Your task to perform on an android device: check data usage Image 0: 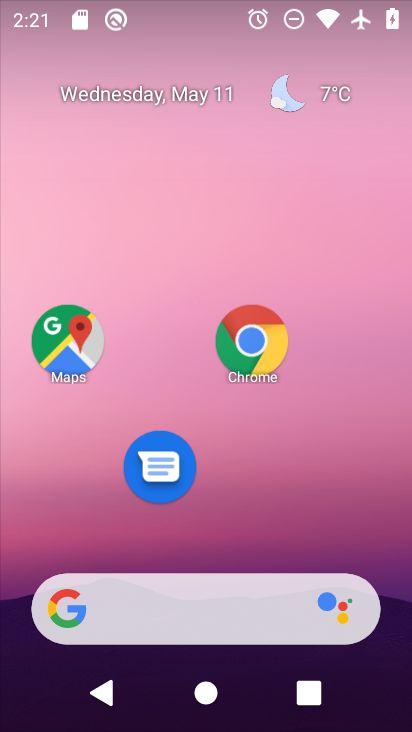
Step 0: press home button
Your task to perform on an android device: check data usage Image 1: 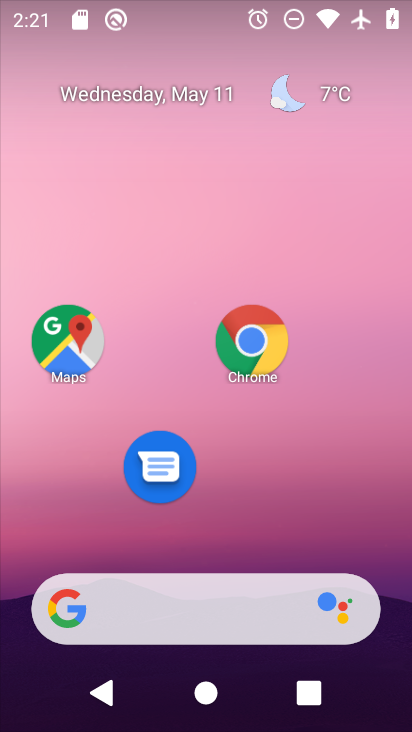
Step 1: drag from (179, 611) to (269, 105)
Your task to perform on an android device: check data usage Image 2: 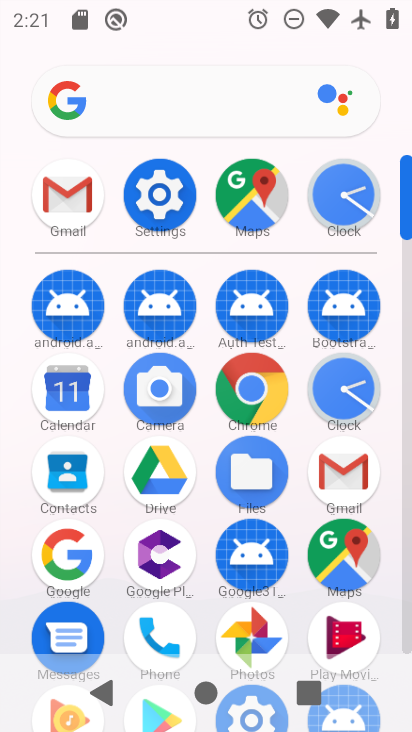
Step 2: click (159, 212)
Your task to perform on an android device: check data usage Image 3: 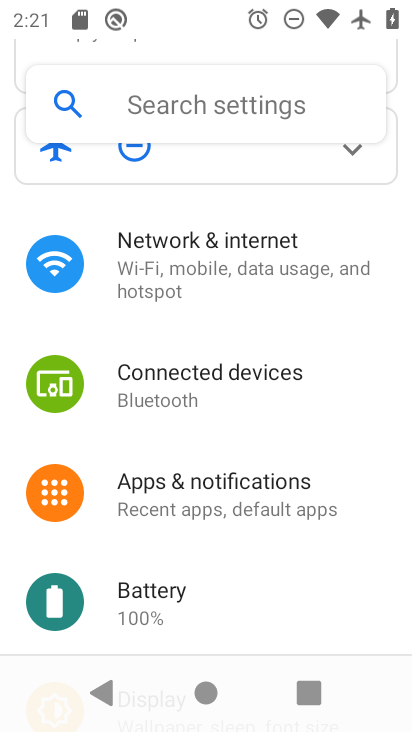
Step 3: click (208, 264)
Your task to perform on an android device: check data usage Image 4: 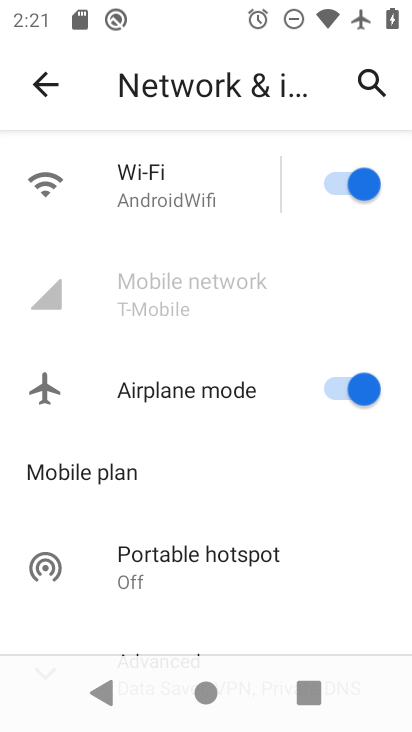
Step 4: click (160, 198)
Your task to perform on an android device: check data usage Image 5: 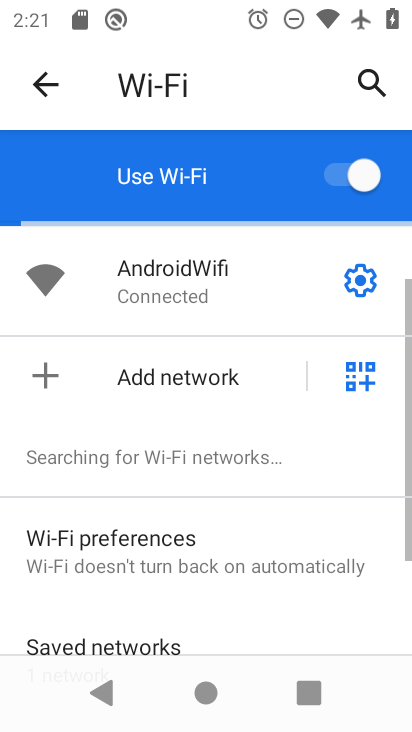
Step 5: drag from (199, 612) to (329, 162)
Your task to perform on an android device: check data usage Image 6: 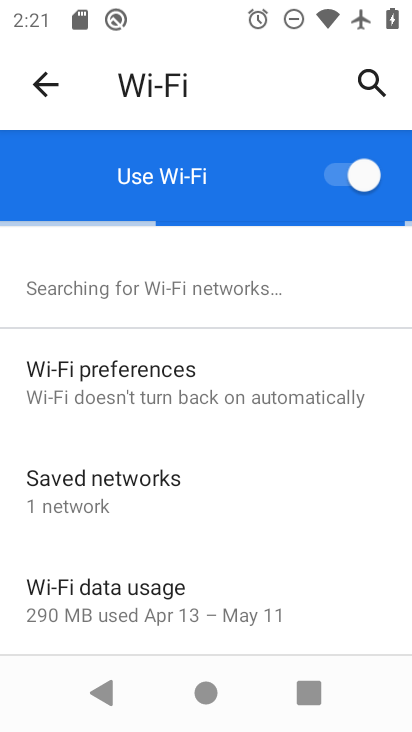
Step 6: click (107, 598)
Your task to perform on an android device: check data usage Image 7: 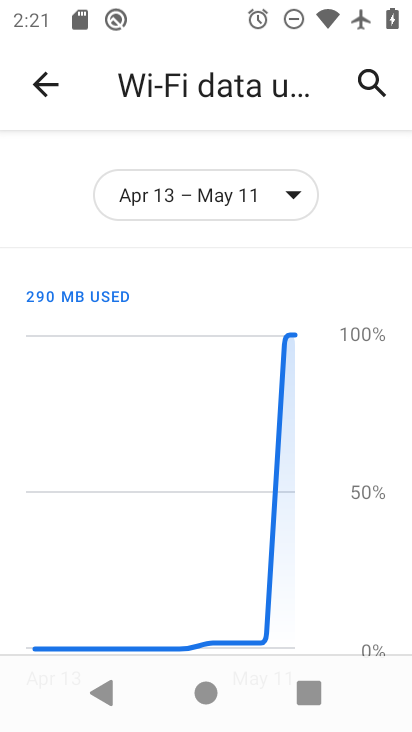
Step 7: task complete